Your task to perform on an android device: Search for logitech g910 on target.com, select the first entry, add it to the cart, then select checkout. Image 0: 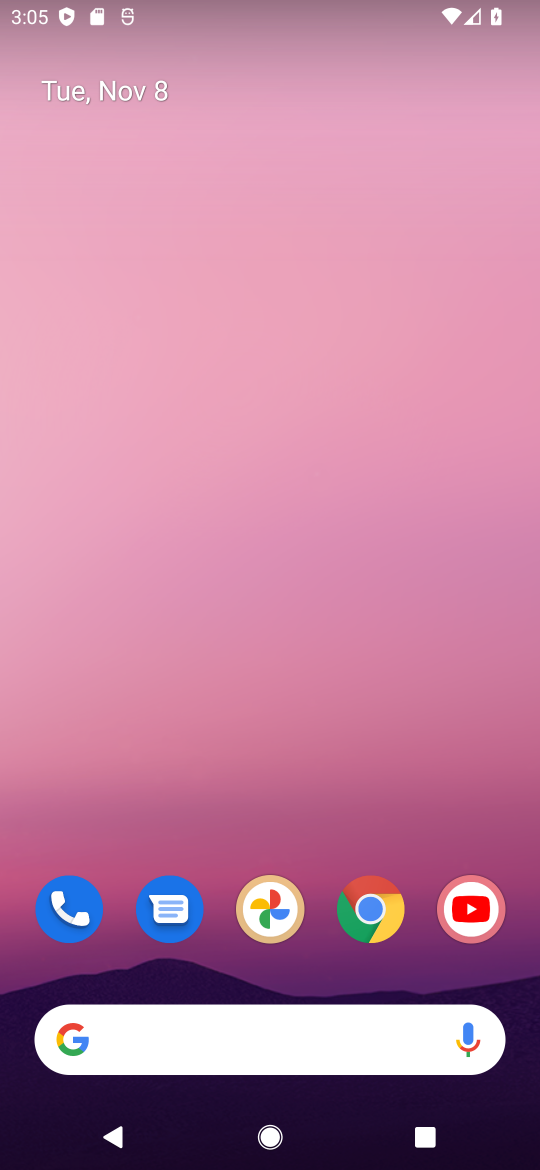
Step 0: click (374, 918)
Your task to perform on an android device: Search for logitech g910 on target.com, select the first entry, add it to the cart, then select checkout. Image 1: 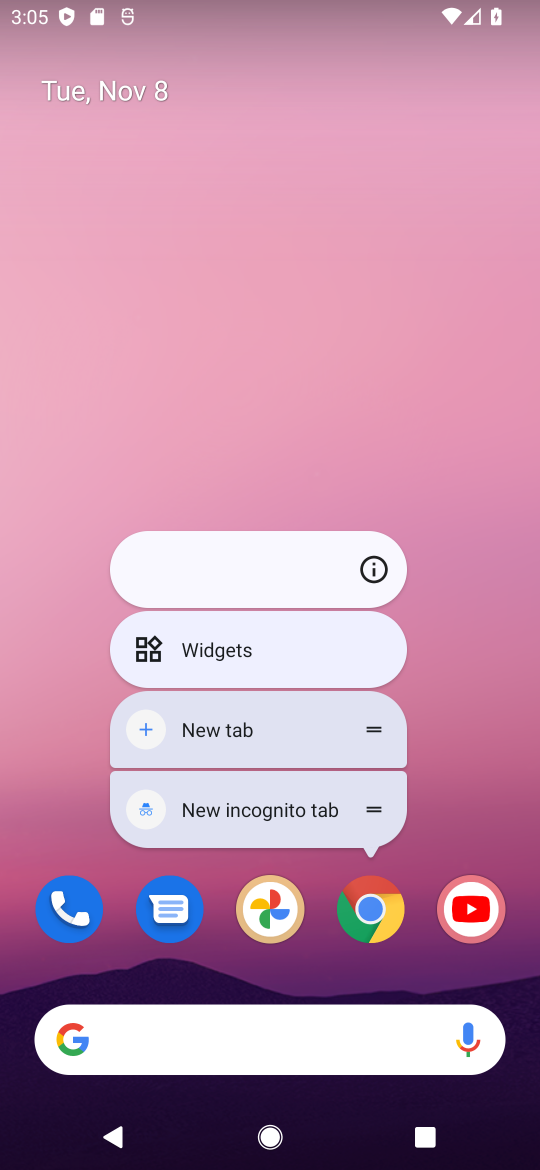
Step 1: click (362, 896)
Your task to perform on an android device: Search for logitech g910 on target.com, select the first entry, add it to the cart, then select checkout. Image 2: 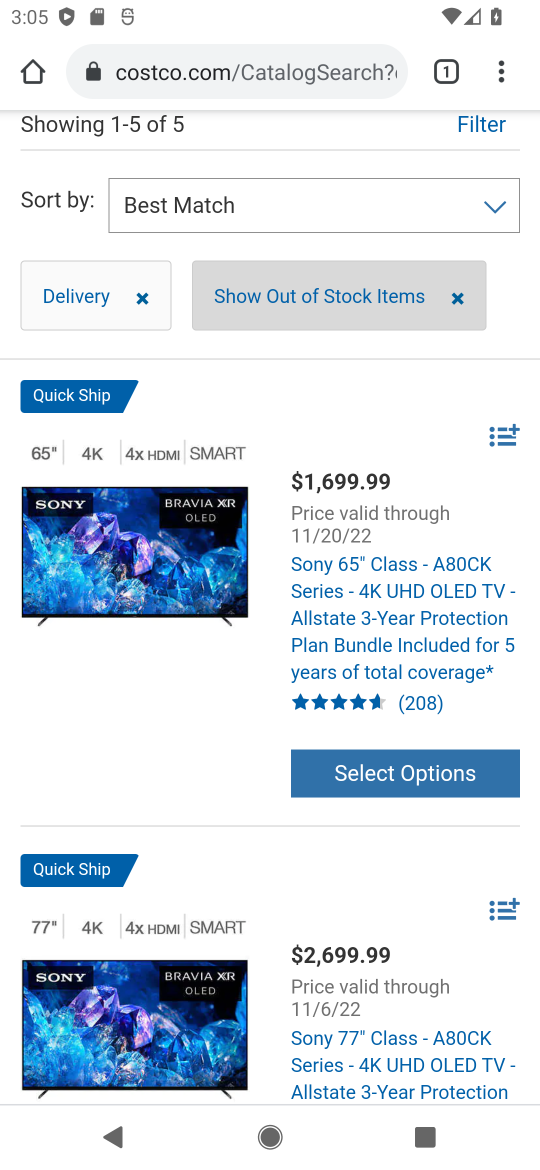
Step 2: click (329, 76)
Your task to perform on an android device: Search for logitech g910 on target.com, select the first entry, add it to the cart, then select checkout. Image 3: 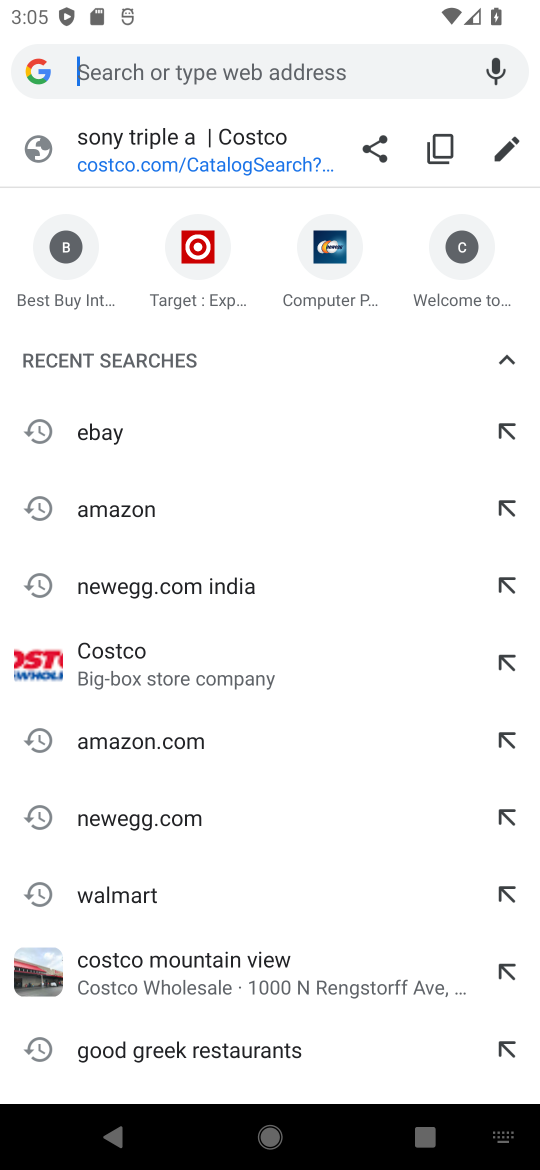
Step 3: type " target.com"
Your task to perform on an android device: Search for logitech g910 on target.com, select the first entry, add it to the cart, then select checkout. Image 4: 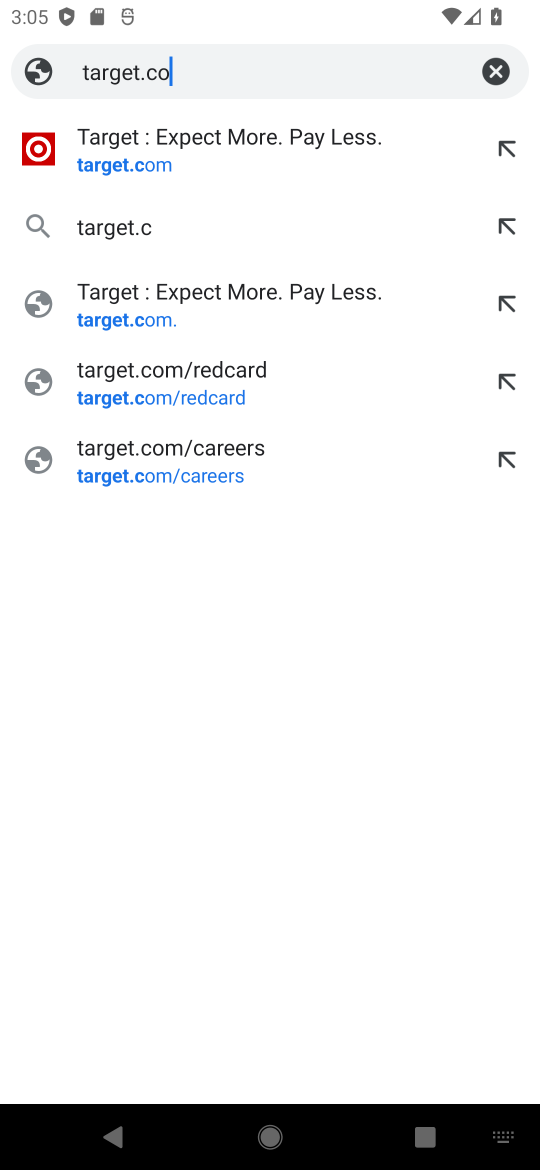
Step 4: press enter
Your task to perform on an android device: Search for logitech g910 on target.com, select the first entry, add it to the cart, then select checkout. Image 5: 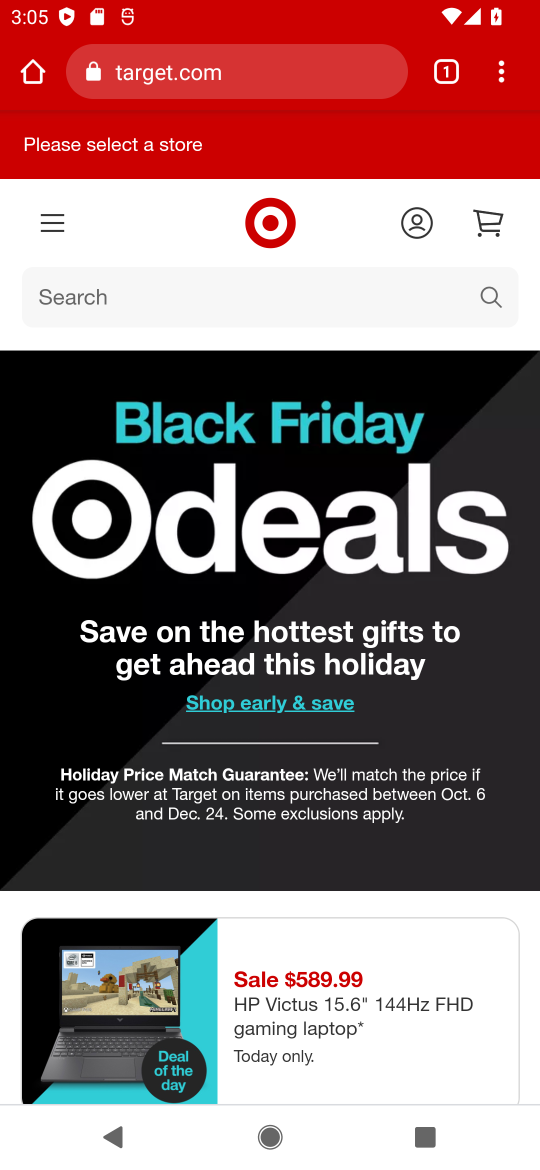
Step 5: click (226, 303)
Your task to perform on an android device: Search for logitech g910 on target.com, select the first entry, add it to the cart, then select checkout. Image 6: 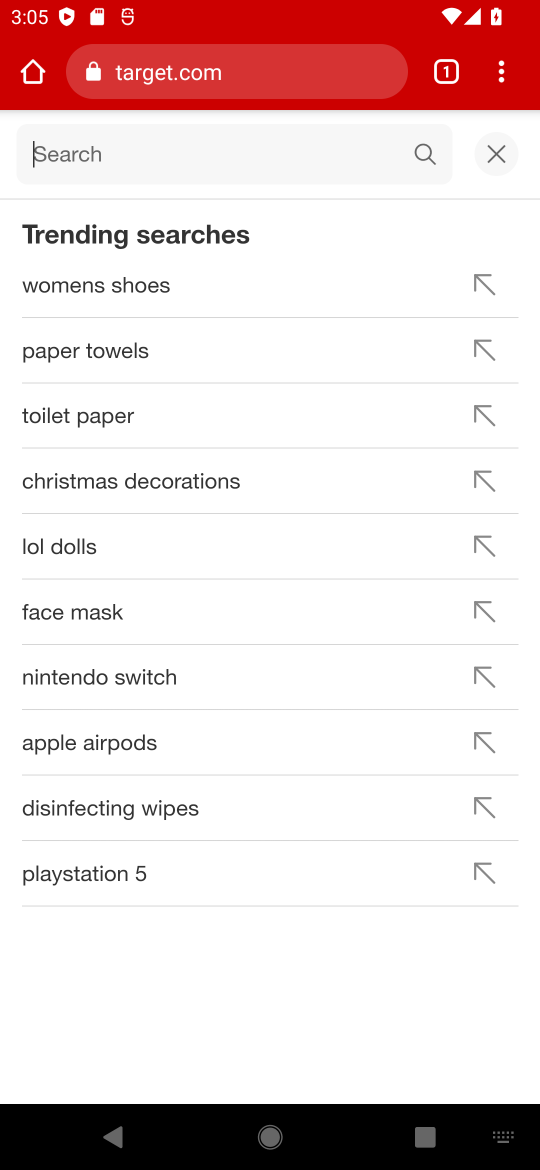
Step 6: type " logitech g910"
Your task to perform on an android device: Search for logitech g910 on target.com, select the first entry, add it to the cart, then select checkout. Image 7: 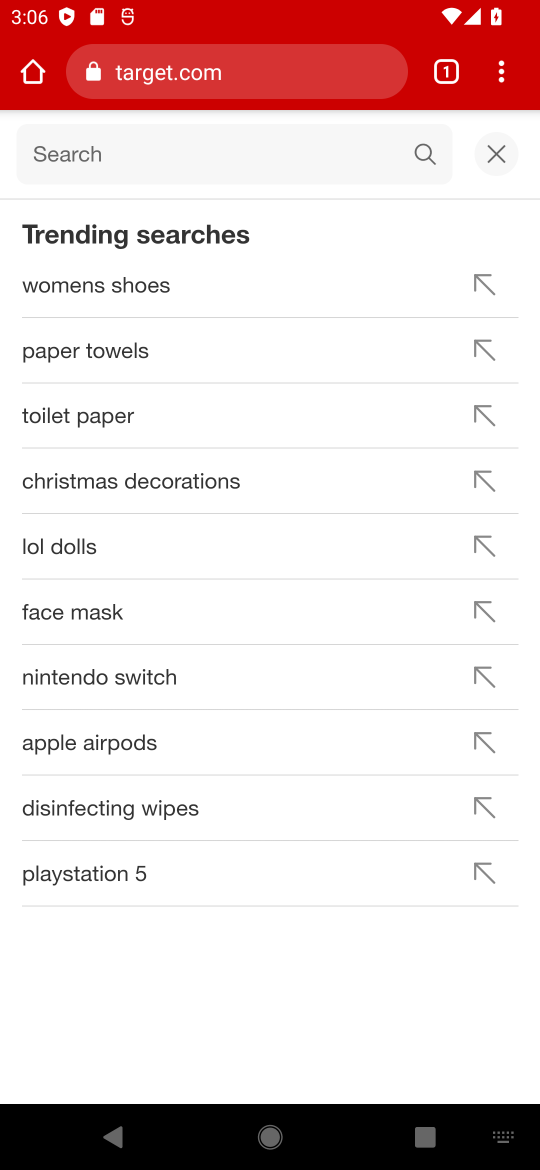
Step 7: press enter
Your task to perform on an android device: Search for logitech g910 on target.com, select the first entry, add it to the cart, then select checkout. Image 8: 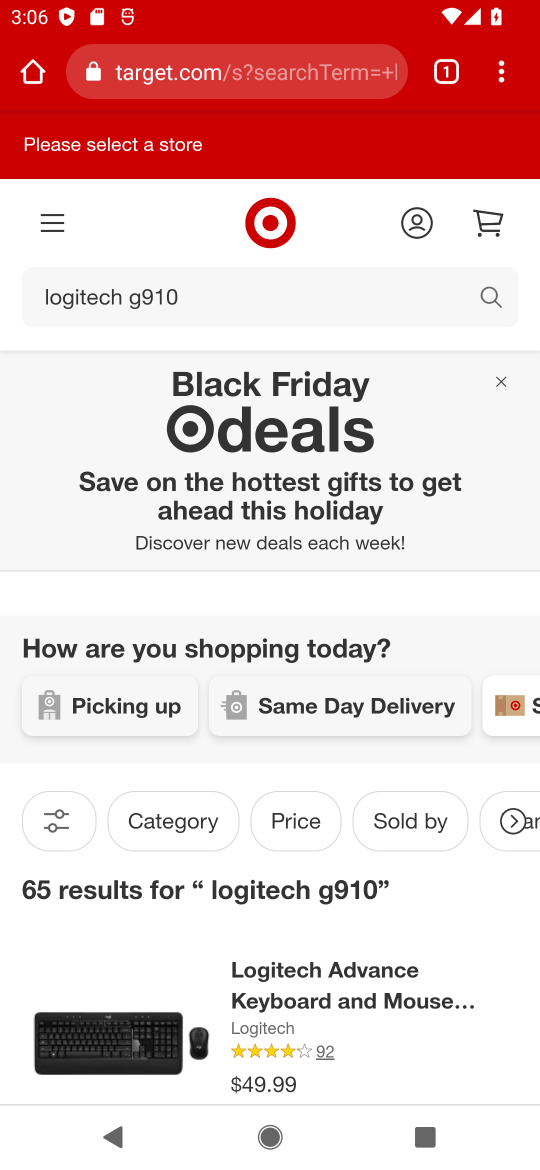
Step 8: task complete